Your task to perform on an android device: search for starred emails in the gmail app Image 0: 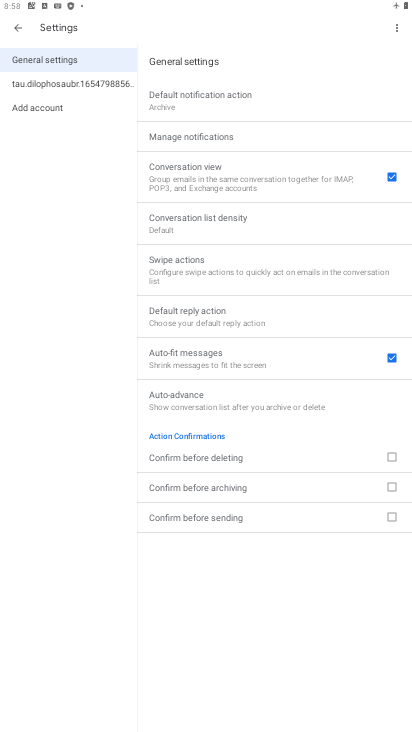
Step 0: click (16, 32)
Your task to perform on an android device: search for starred emails in the gmail app Image 1: 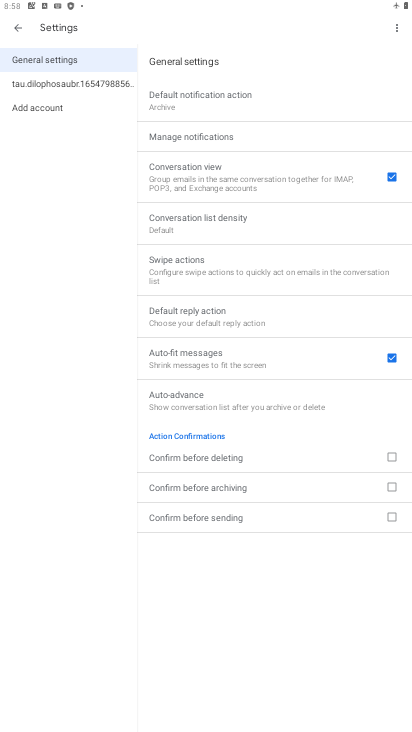
Step 1: click (13, 25)
Your task to perform on an android device: search for starred emails in the gmail app Image 2: 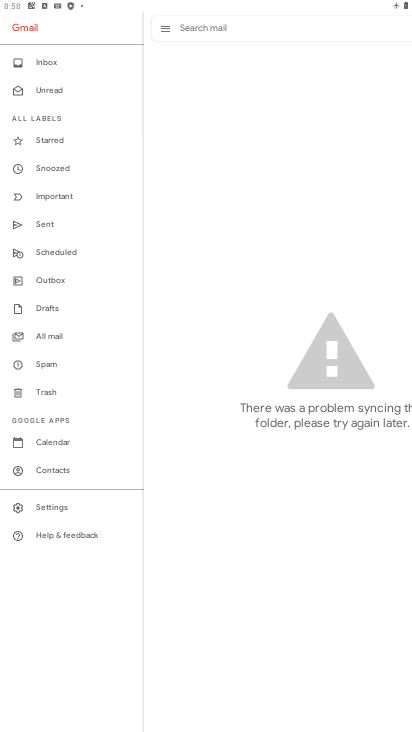
Step 2: click (80, 143)
Your task to perform on an android device: search for starred emails in the gmail app Image 3: 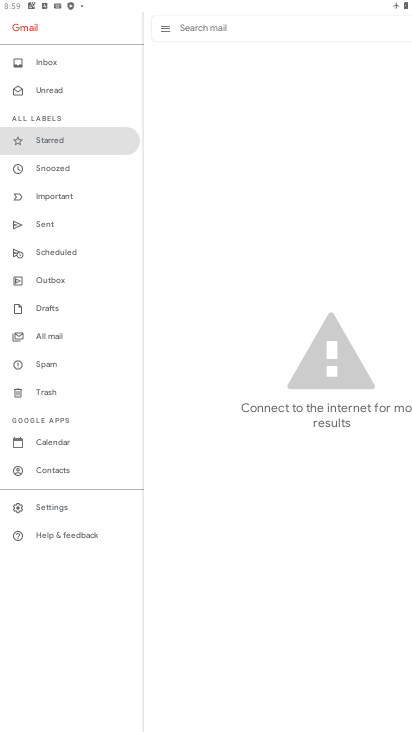
Step 3: task complete